Your task to perform on an android device: turn on the 24-hour format for clock Image 0: 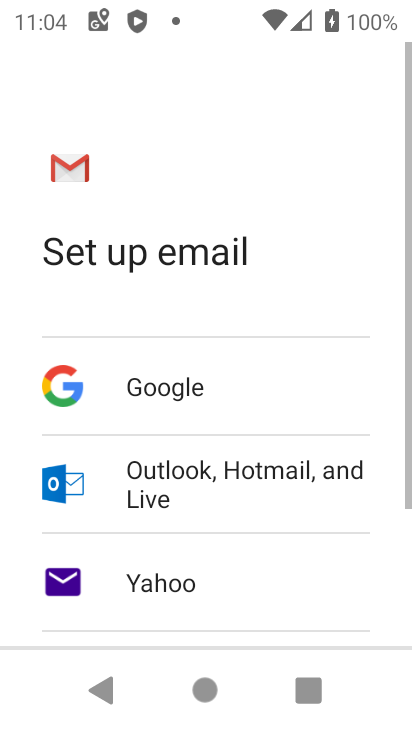
Step 0: press home button
Your task to perform on an android device: turn on the 24-hour format for clock Image 1: 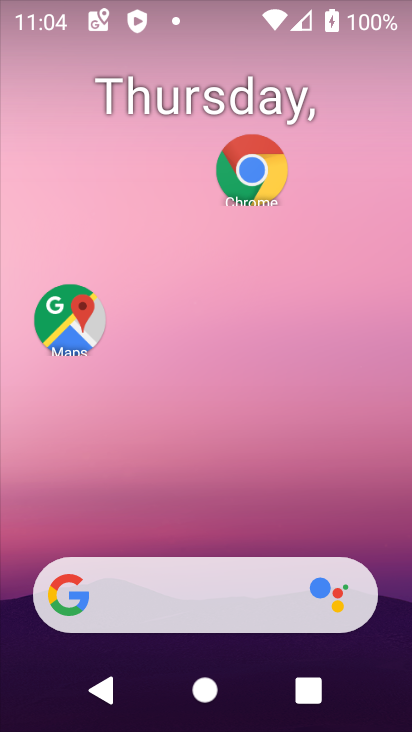
Step 1: drag from (159, 505) to (229, 162)
Your task to perform on an android device: turn on the 24-hour format for clock Image 2: 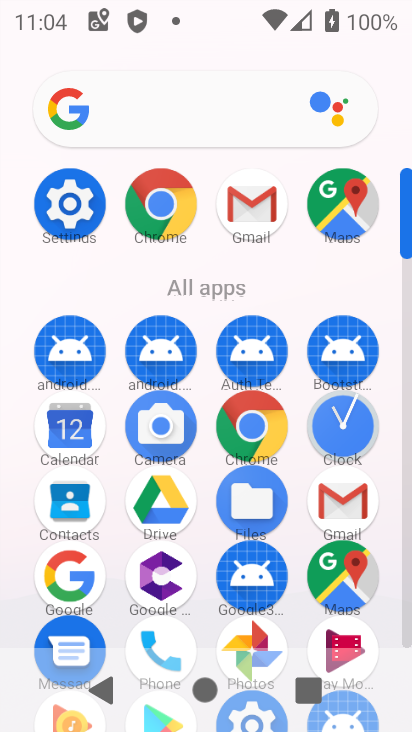
Step 2: click (335, 445)
Your task to perform on an android device: turn on the 24-hour format for clock Image 3: 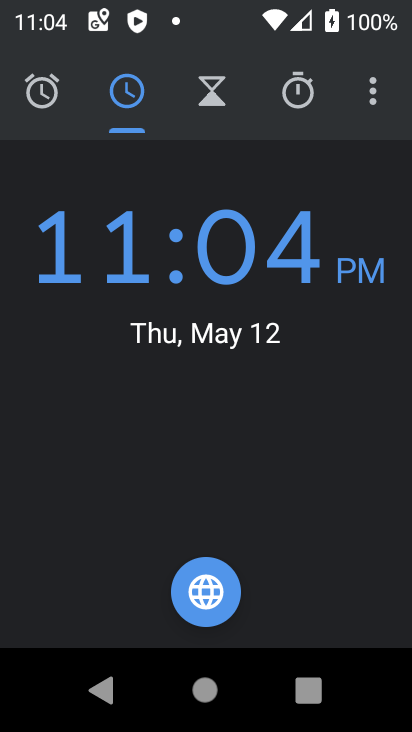
Step 3: click (377, 93)
Your task to perform on an android device: turn on the 24-hour format for clock Image 4: 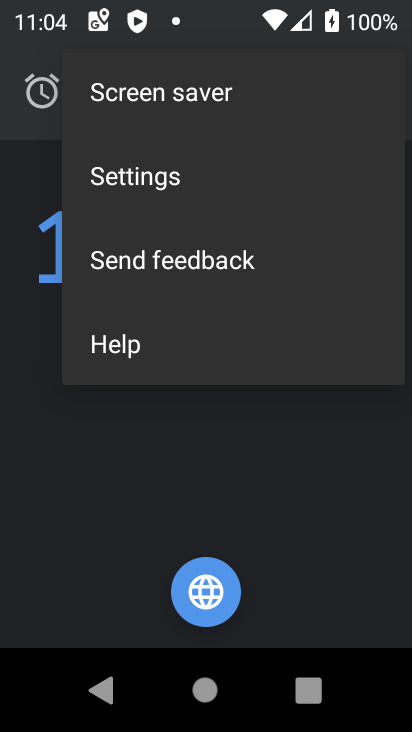
Step 4: click (166, 176)
Your task to perform on an android device: turn on the 24-hour format for clock Image 5: 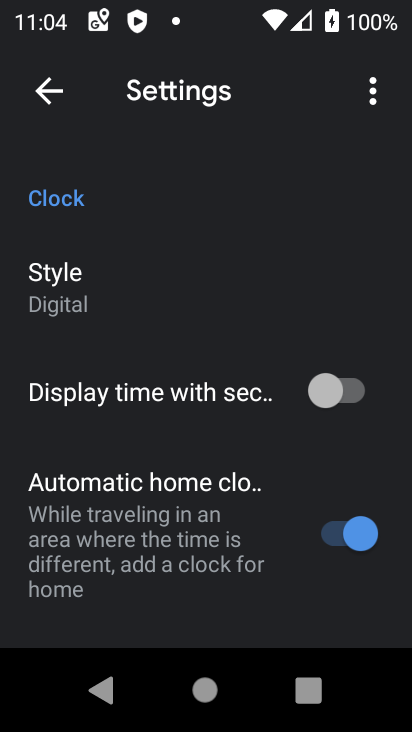
Step 5: drag from (131, 567) to (164, 256)
Your task to perform on an android device: turn on the 24-hour format for clock Image 6: 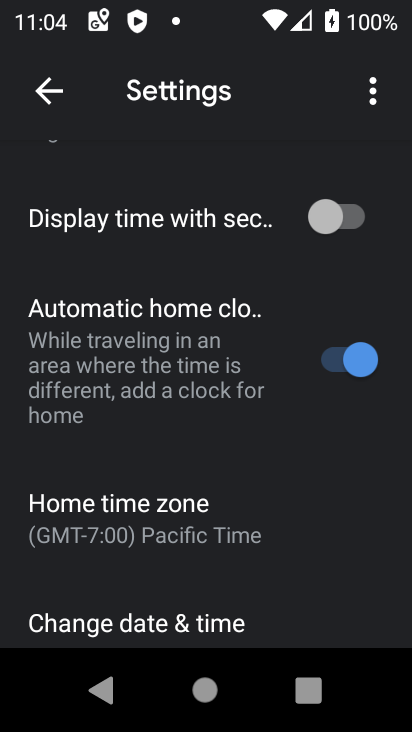
Step 6: click (139, 629)
Your task to perform on an android device: turn on the 24-hour format for clock Image 7: 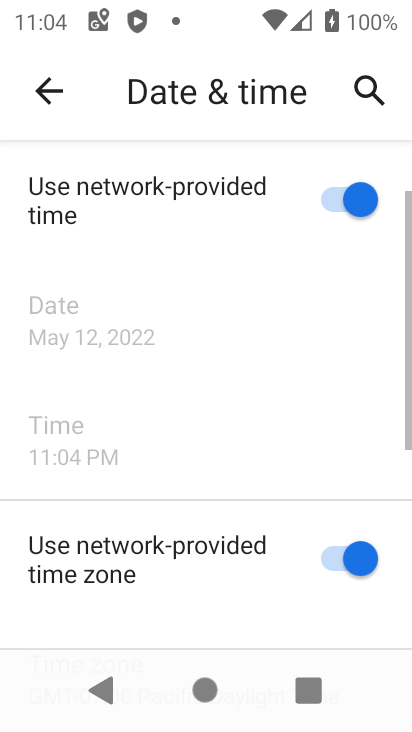
Step 7: drag from (148, 637) to (206, 231)
Your task to perform on an android device: turn on the 24-hour format for clock Image 8: 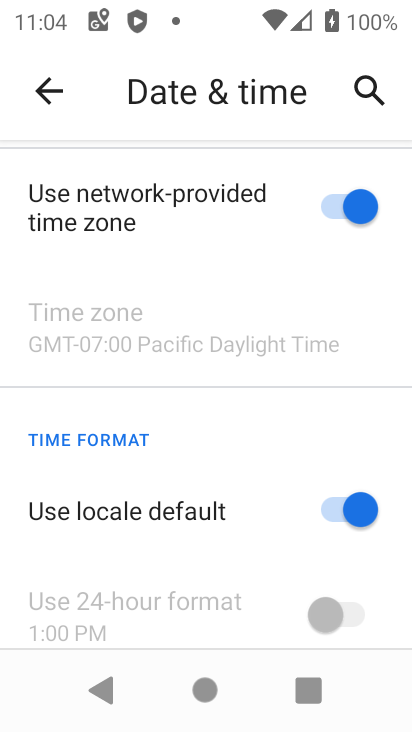
Step 8: drag from (198, 619) to (186, 339)
Your task to perform on an android device: turn on the 24-hour format for clock Image 9: 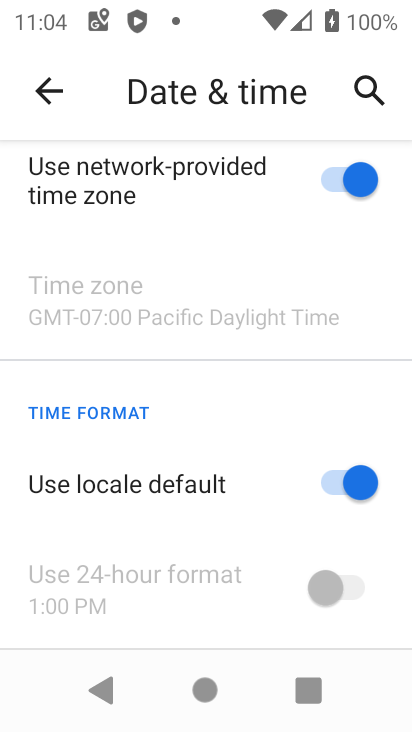
Step 9: click (351, 581)
Your task to perform on an android device: turn on the 24-hour format for clock Image 10: 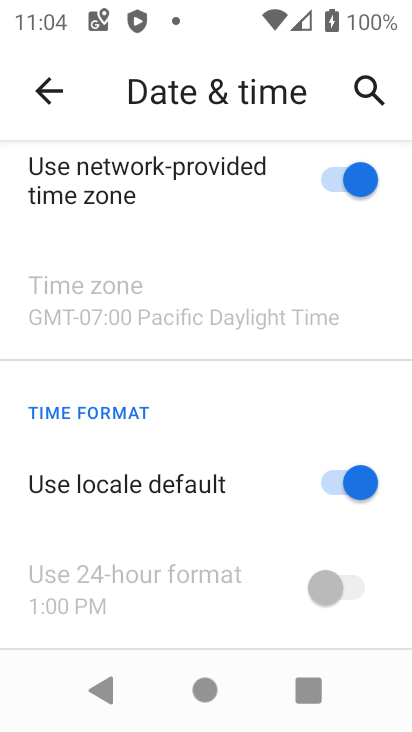
Step 10: click (324, 487)
Your task to perform on an android device: turn on the 24-hour format for clock Image 11: 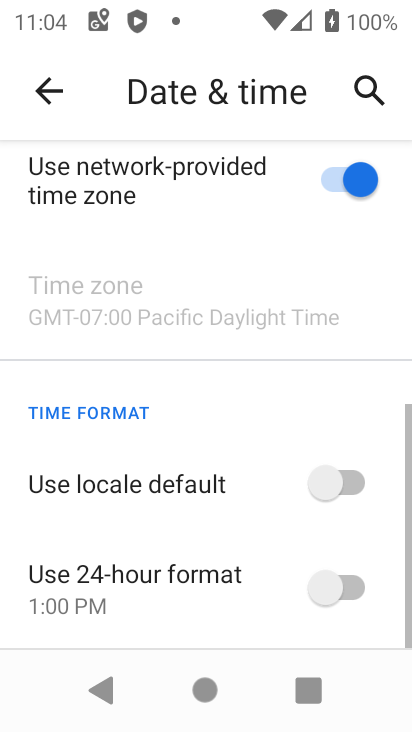
Step 11: click (356, 588)
Your task to perform on an android device: turn on the 24-hour format for clock Image 12: 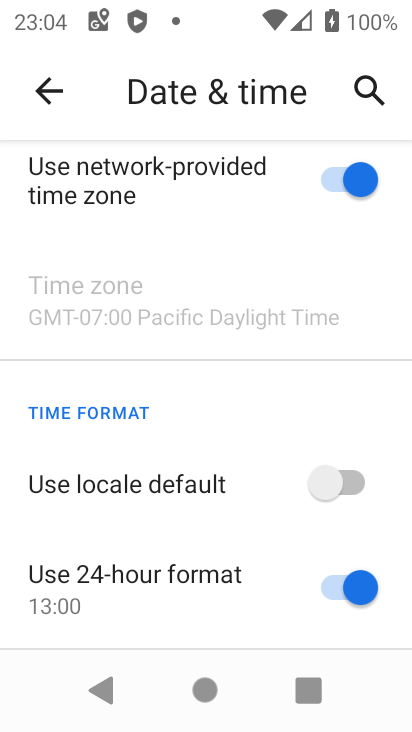
Step 12: task complete